Your task to perform on an android device: Check the news Image 0: 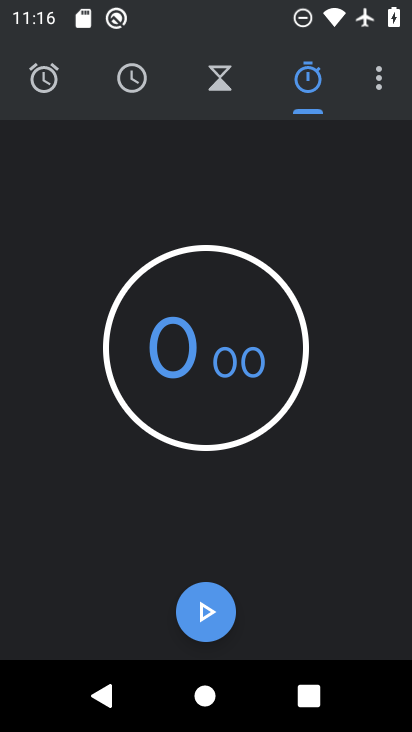
Step 0: press back button
Your task to perform on an android device: Check the news Image 1: 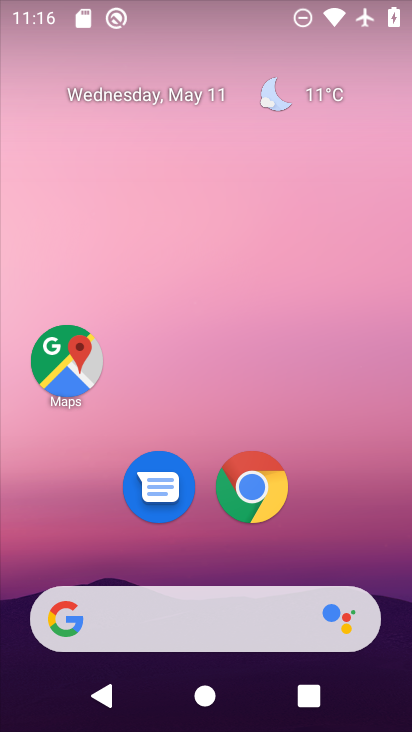
Step 1: drag from (333, 533) to (280, 8)
Your task to perform on an android device: Check the news Image 2: 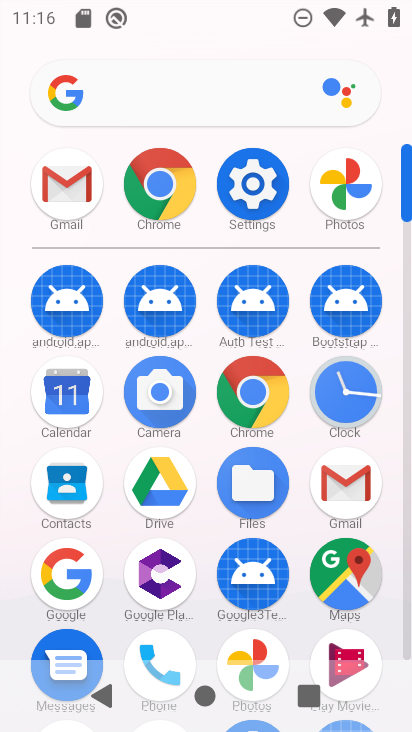
Step 2: drag from (8, 558) to (18, 212)
Your task to perform on an android device: Check the news Image 3: 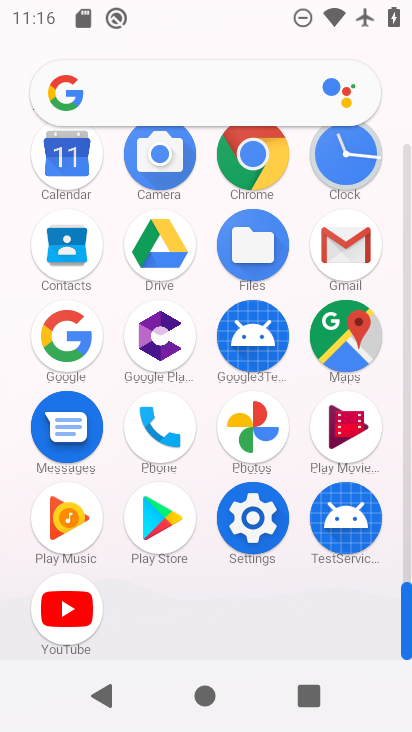
Step 3: click (254, 157)
Your task to perform on an android device: Check the news Image 4: 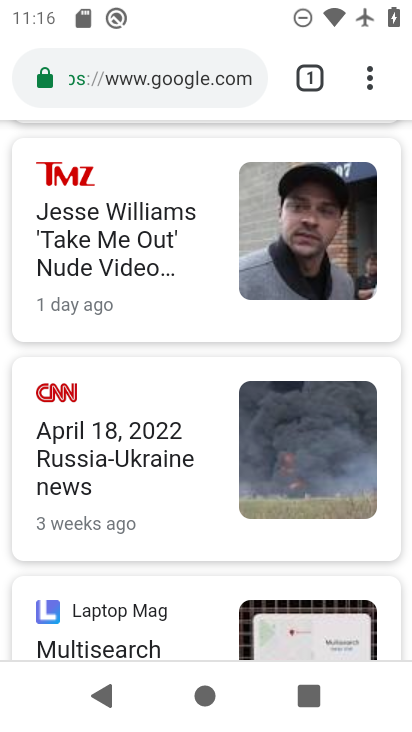
Step 4: click (163, 76)
Your task to perform on an android device: Check the news Image 5: 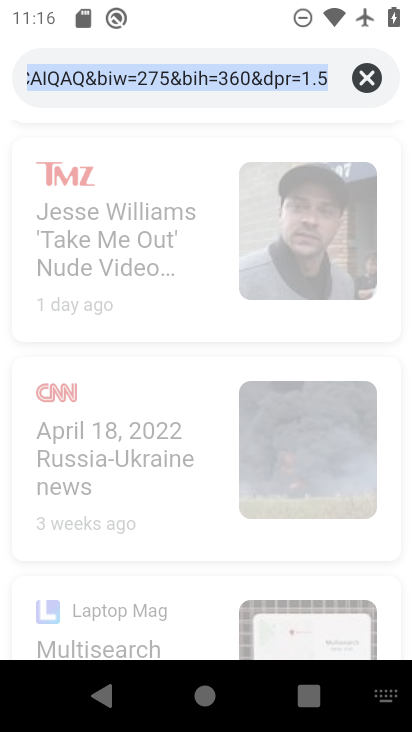
Step 5: click (363, 69)
Your task to perform on an android device: Check the news Image 6: 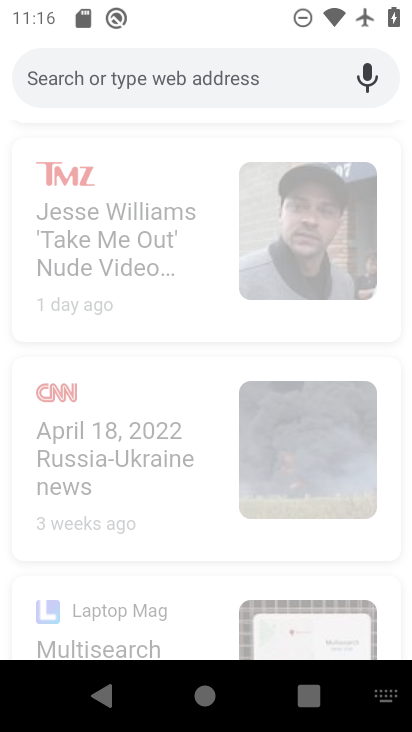
Step 6: type "Check the news"
Your task to perform on an android device: Check the news Image 7: 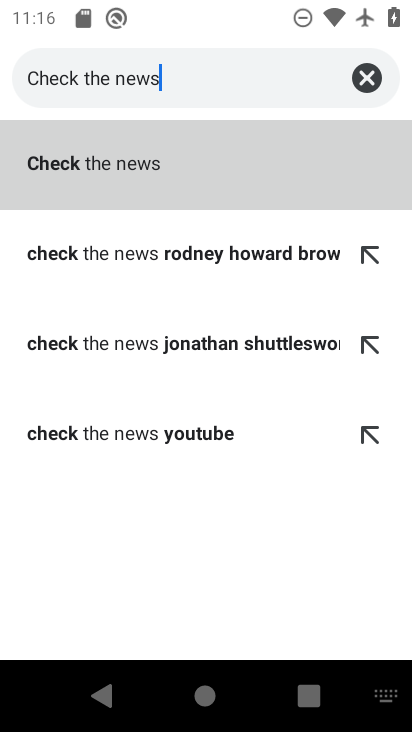
Step 7: type ""
Your task to perform on an android device: Check the news Image 8: 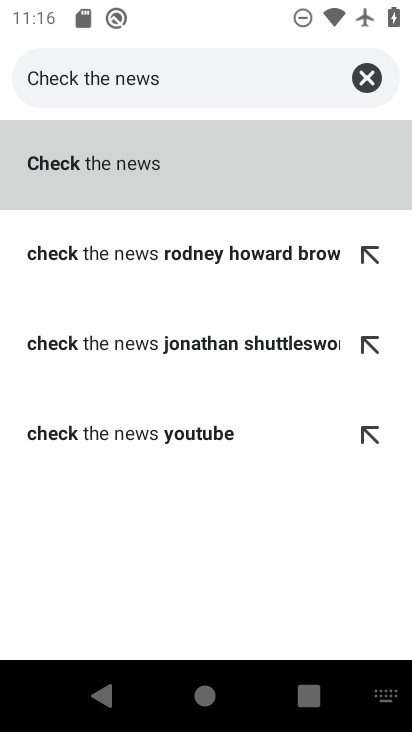
Step 8: click (163, 166)
Your task to perform on an android device: Check the news Image 9: 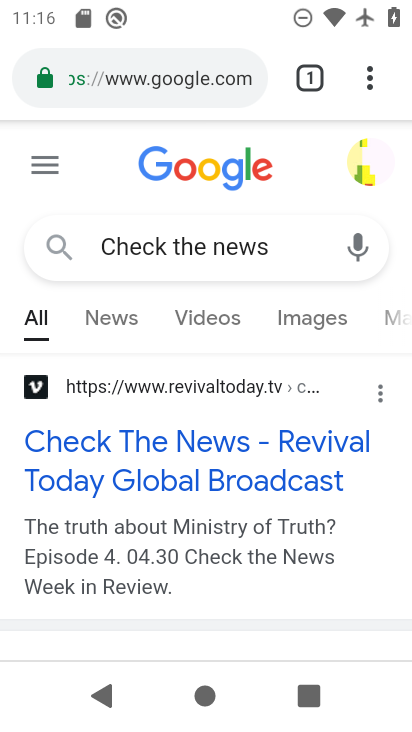
Step 9: click (113, 316)
Your task to perform on an android device: Check the news Image 10: 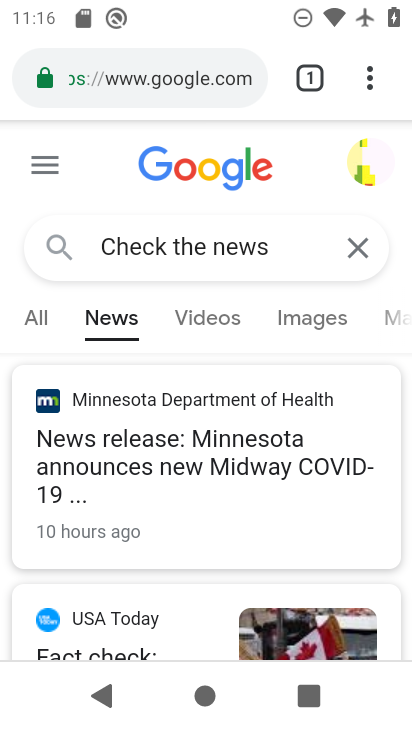
Step 10: task complete